Your task to perform on an android device: open app "Booking.com: Hotels and more" (install if not already installed) and go to login screen Image 0: 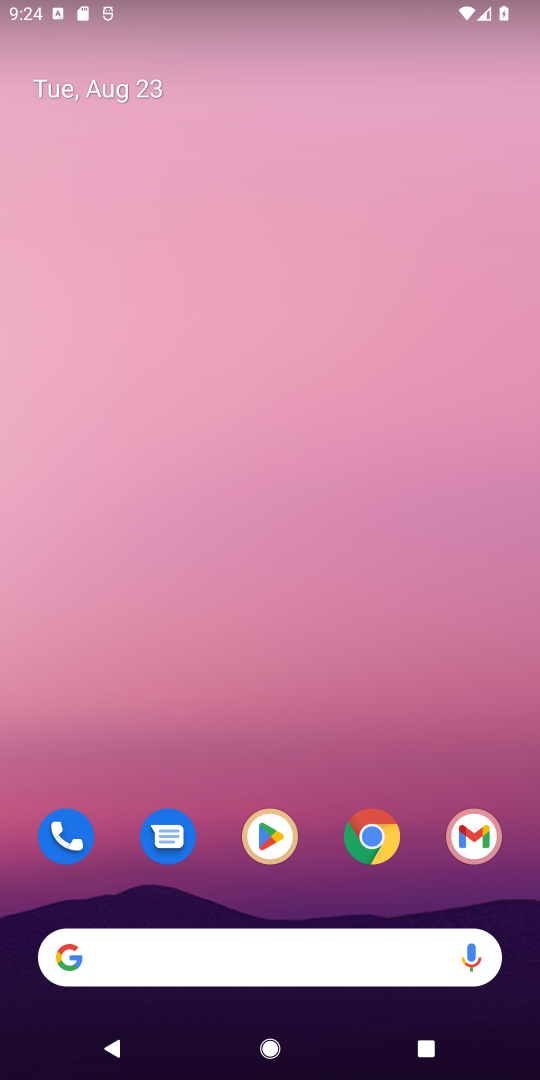
Step 0: click (267, 835)
Your task to perform on an android device: open app "Booking.com: Hotels and more" (install if not already installed) and go to login screen Image 1: 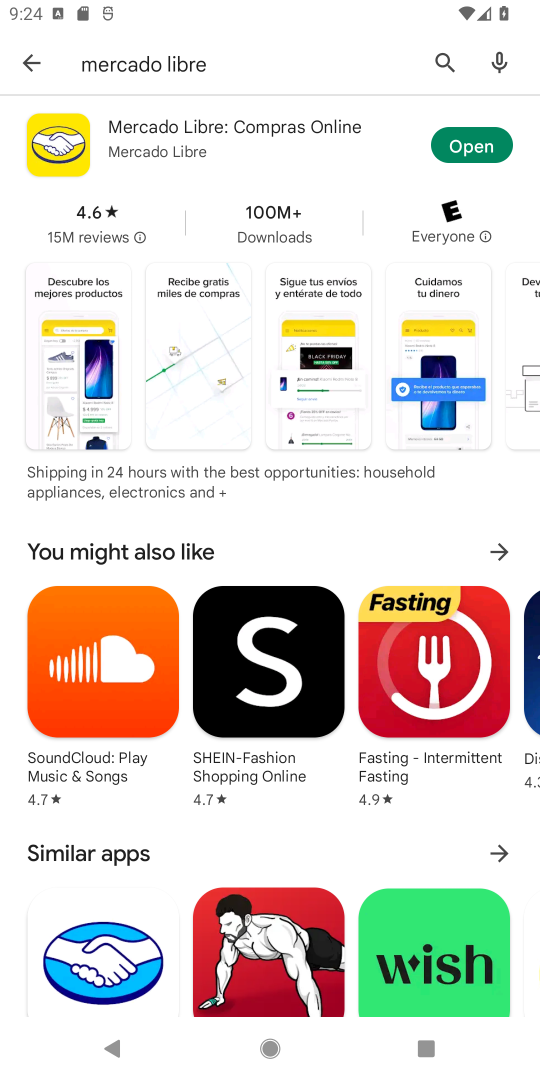
Step 1: click (444, 55)
Your task to perform on an android device: open app "Booking.com: Hotels and more" (install if not already installed) and go to login screen Image 2: 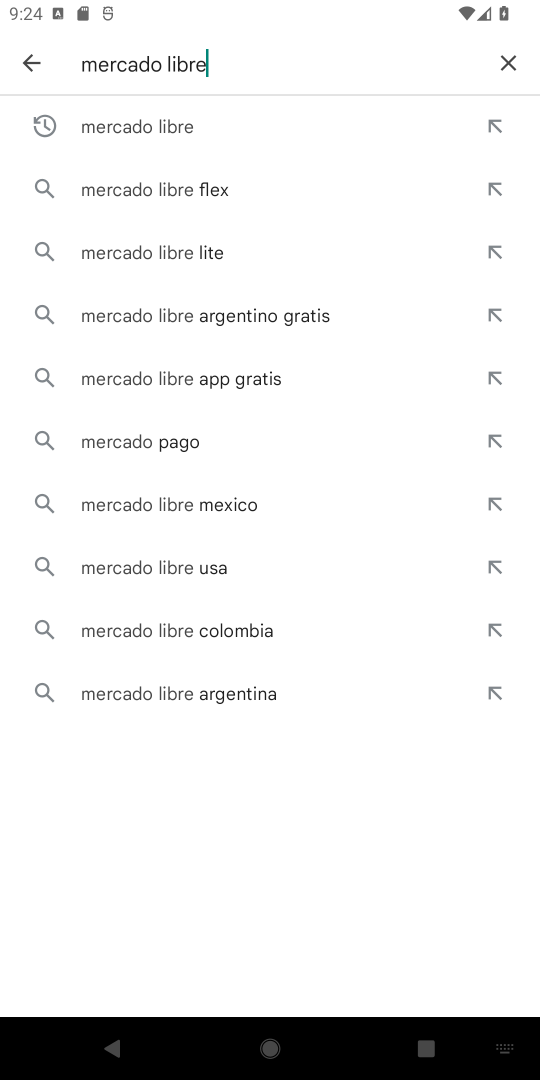
Step 2: click (514, 61)
Your task to perform on an android device: open app "Booking.com: Hotels and more" (install if not already installed) and go to login screen Image 3: 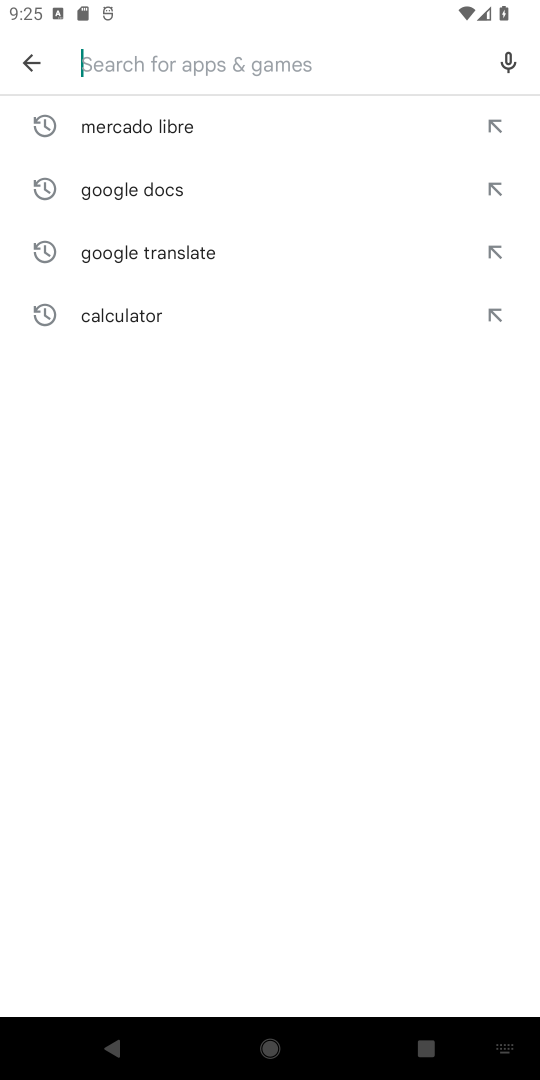
Step 3: type "Booking.com: Hotels and more"
Your task to perform on an android device: open app "Booking.com: Hotels and more" (install if not already installed) and go to login screen Image 4: 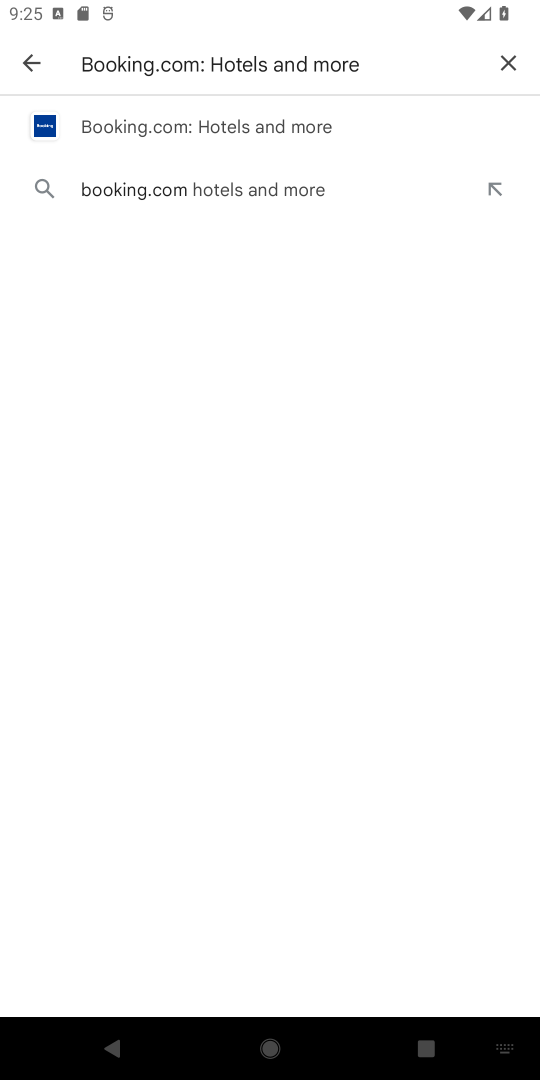
Step 4: click (272, 128)
Your task to perform on an android device: open app "Booking.com: Hotels and more" (install if not already installed) and go to login screen Image 5: 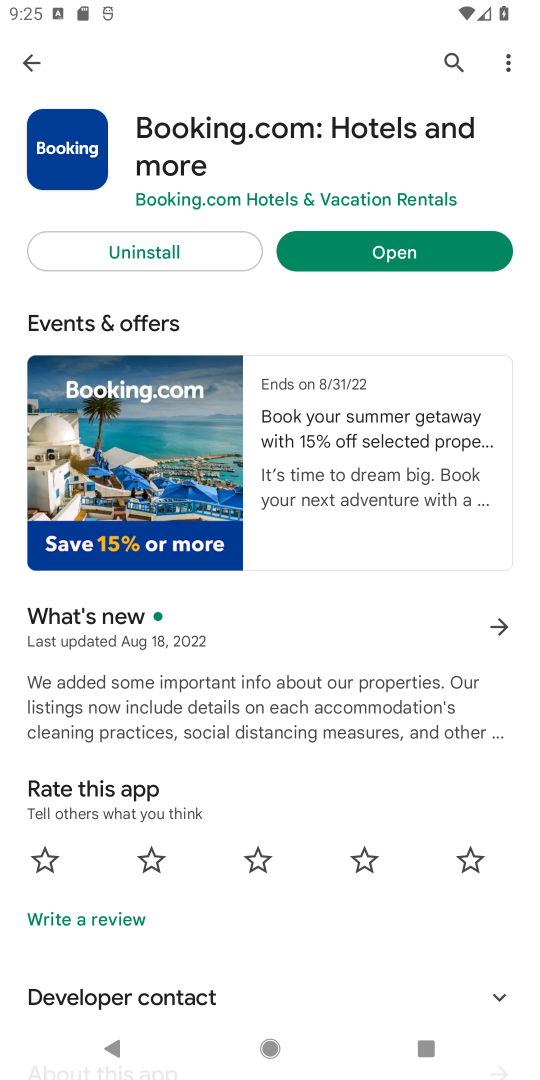
Step 5: click (404, 241)
Your task to perform on an android device: open app "Booking.com: Hotels and more" (install if not already installed) and go to login screen Image 6: 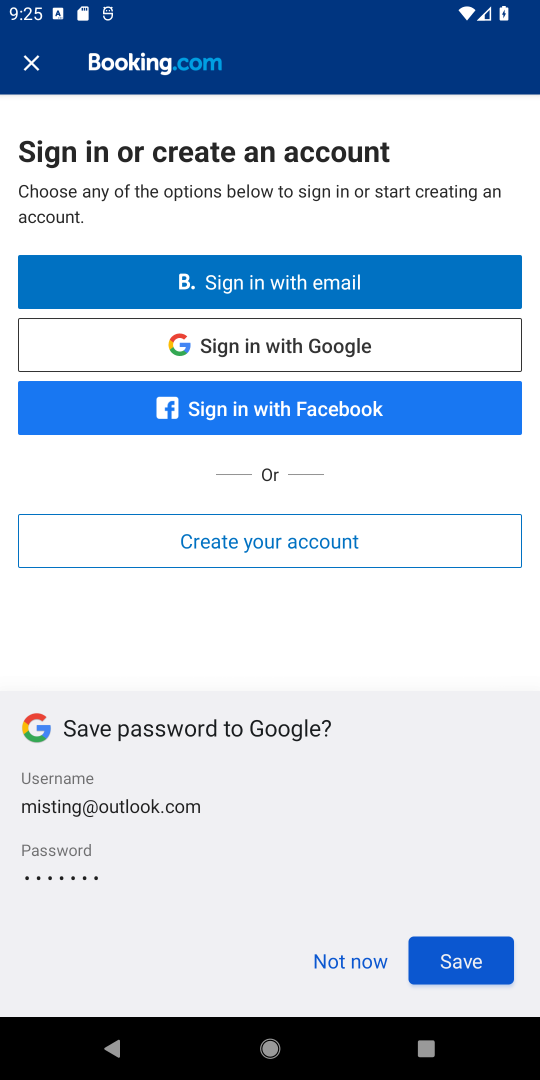
Step 6: task complete